Your task to perform on an android device: toggle javascript in the chrome app Image 0: 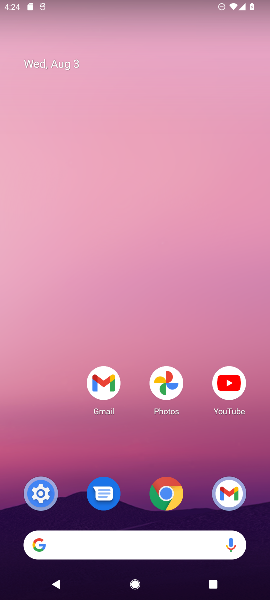
Step 0: press home button
Your task to perform on an android device: toggle javascript in the chrome app Image 1: 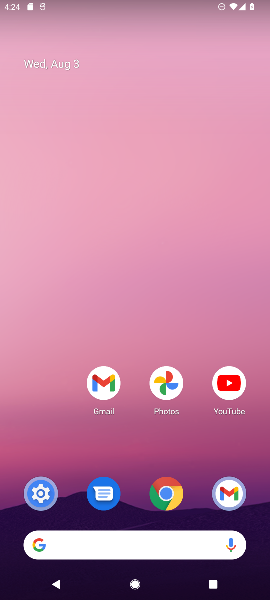
Step 1: drag from (26, 441) to (51, 182)
Your task to perform on an android device: toggle javascript in the chrome app Image 2: 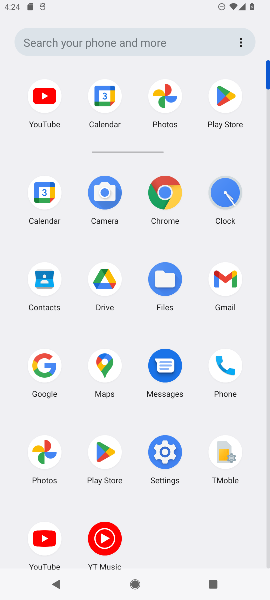
Step 2: click (174, 193)
Your task to perform on an android device: toggle javascript in the chrome app Image 3: 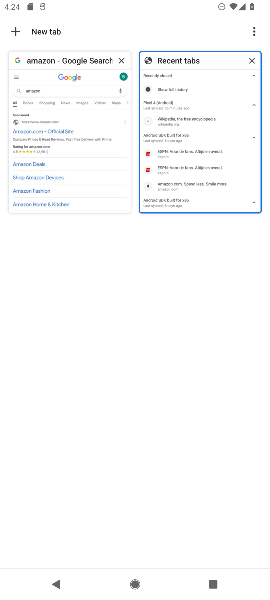
Step 3: click (254, 35)
Your task to perform on an android device: toggle javascript in the chrome app Image 4: 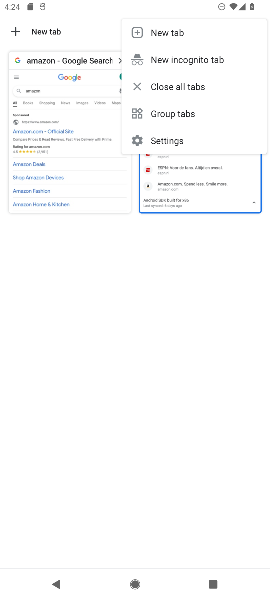
Step 4: click (215, 144)
Your task to perform on an android device: toggle javascript in the chrome app Image 5: 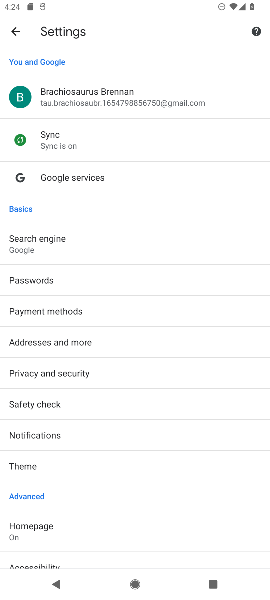
Step 5: drag from (160, 336) to (174, 249)
Your task to perform on an android device: toggle javascript in the chrome app Image 6: 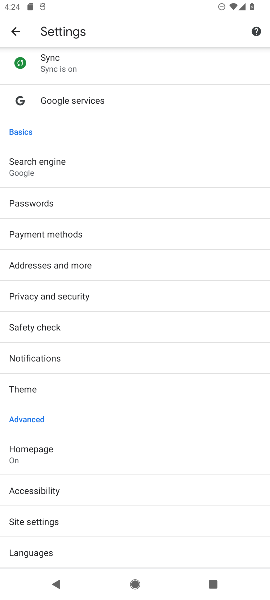
Step 6: drag from (145, 493) to (162, 304)
Your task to perform on an android device: toggle javascript in the chrome app Image 7: 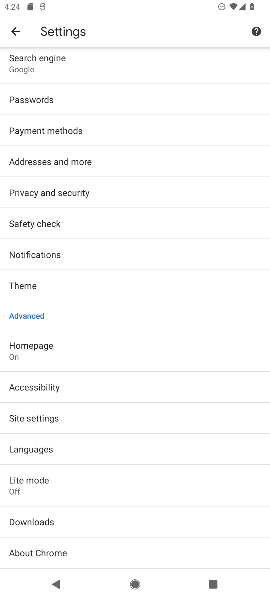
Step 7: click (151, 421)
Your task to perform on an android device: toggle javascript in the chrome app Image 8: 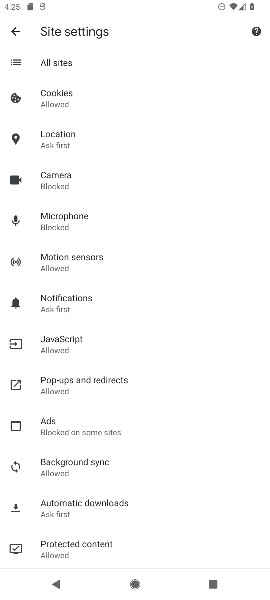
Step 8: click (70, 354)
Your task to perform on an android device: toggle javascript in the chrome app Image 9: 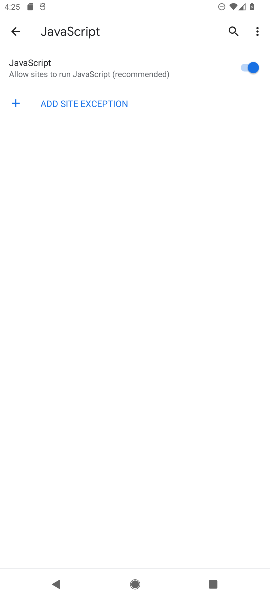
Step 9: click (255, 69)
Your task to perform on an android device: toggle javascript in the chrome app Image 10: 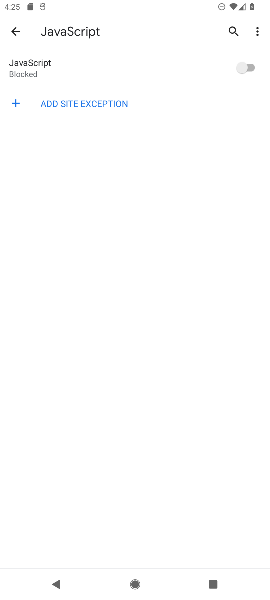
Step 10: task complete